Your task to perform on an android device: Open the calendar and show me this week's events? Image 0: 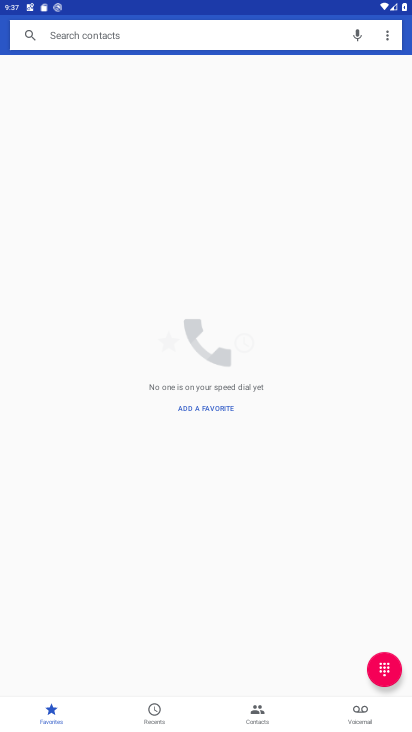
Step 0: press home button
Your task to perform on an android device: Open the calendar and show me this week's events? Image 1: 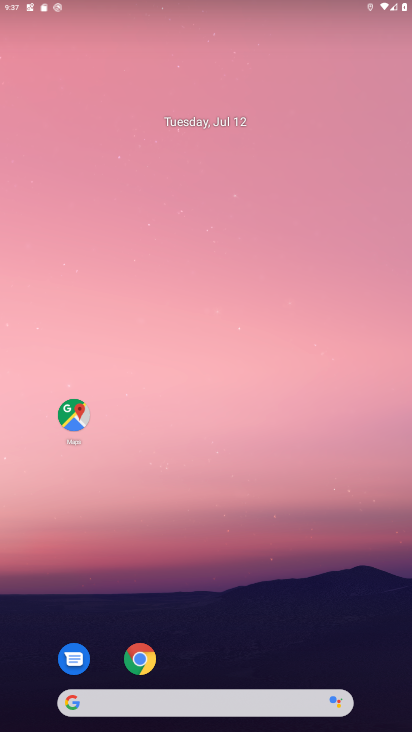
Step 1: drag from (267, 657) to (411, 189)
Your task to perform on an android device: Open the calendar and show me this week's events? Image 2: 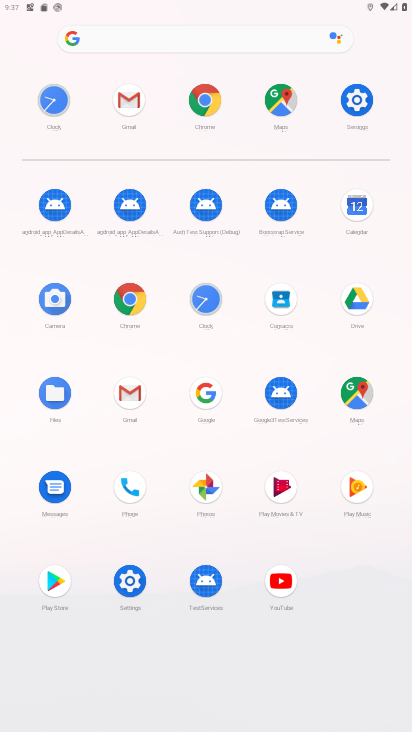
Step 2: click (294, 587)
Your task to perform on an android device: Open the calendar and show me this week's events? Image 3: 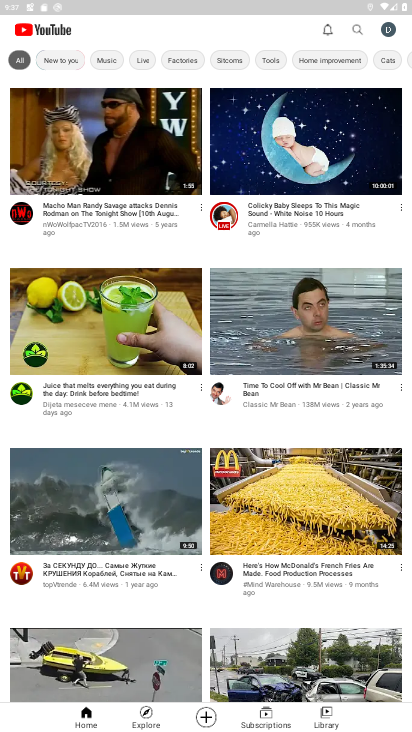
Step 3: press back button
Your task to perform on an android device: Open the calendar and show me this week's events? Image 4: 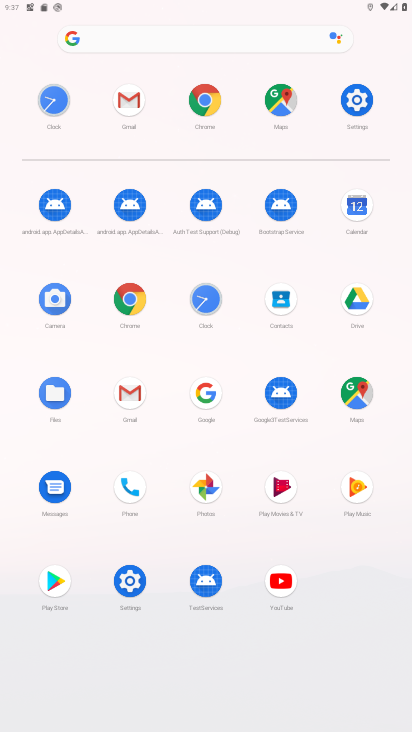
Step 4: click (363, 194)
Your task to perform on an android device: Open the calendar and show me this week's events? Image 5: 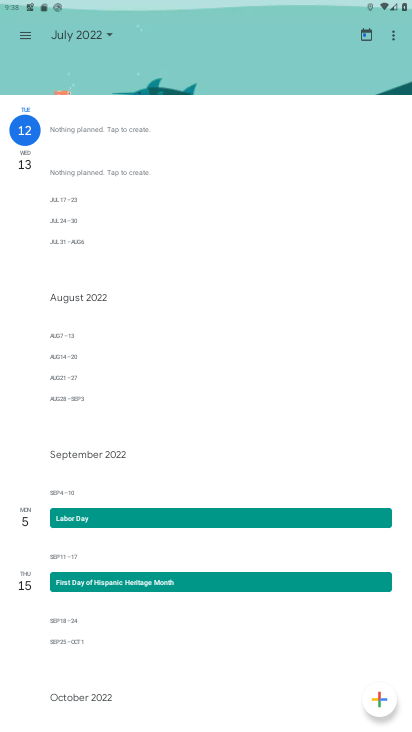
Step 5: task complete